Your task to perform on an android device: turn vacation reply on in the gmail app Image 0: 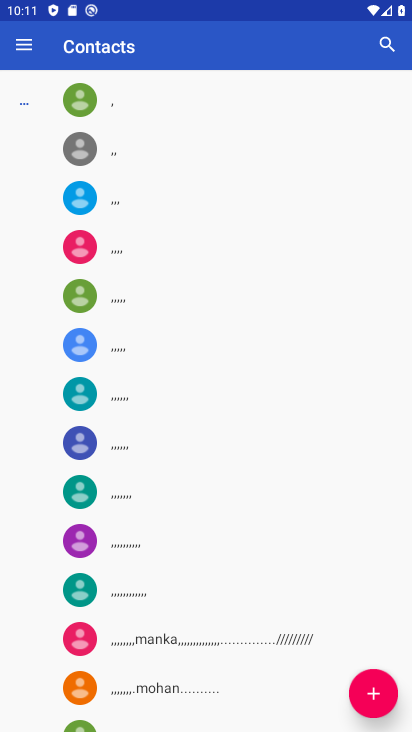
Step 0: press home button
Your task to perform on an android device: turn vacation reply on in the gmail app Image 1: 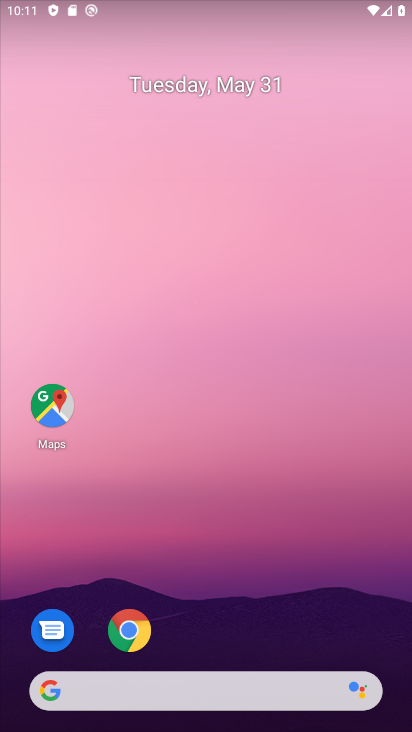
Step 1: drag from (323, 613) to (272, 137)
Your task to perform on an android device: turn vacation reply on in the gmail app Image 2: 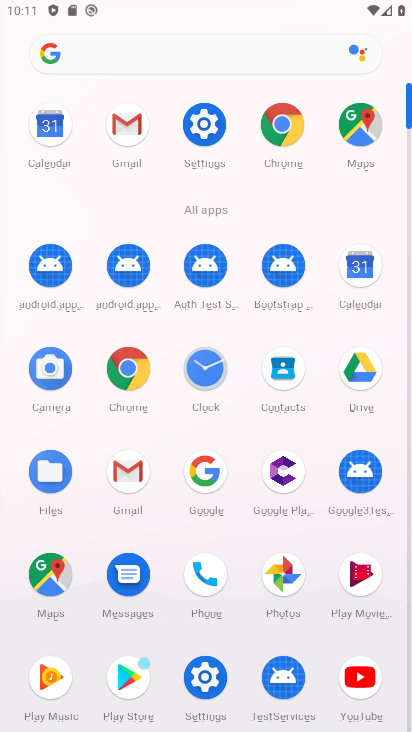
Step 2: click (133, 126)
Your task to perform on an android device: turn vacation reply on in the gmail app Image 3: 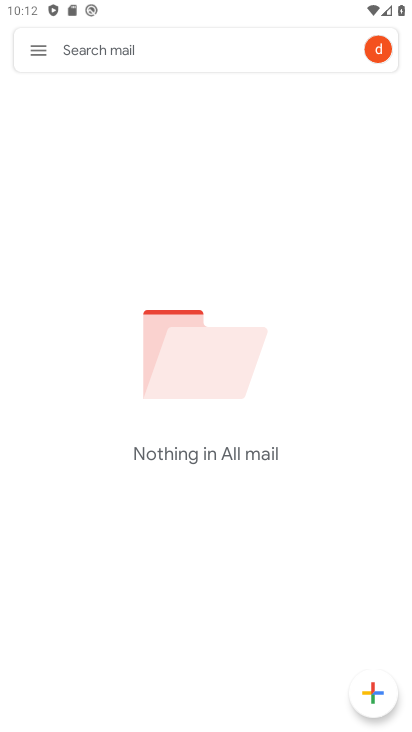
Step 3: click (45, 52)
Your task to perform on an android device: turn vacation reply on in the gmail app Image 4: 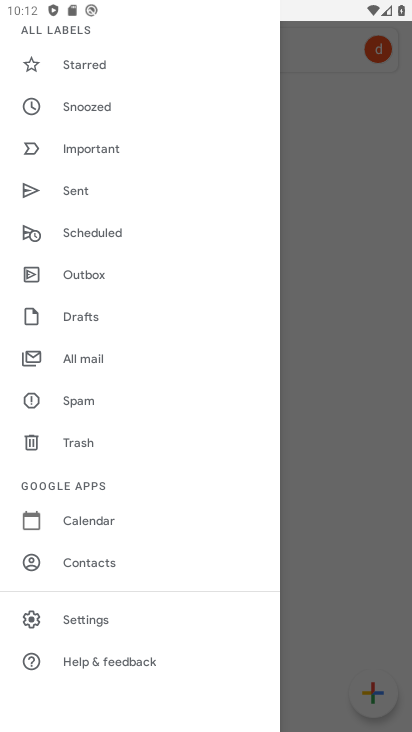
Step 4: click (94, 618)
Your task to perform on an android device: turn vacation reply on in the gmail app Image 5: 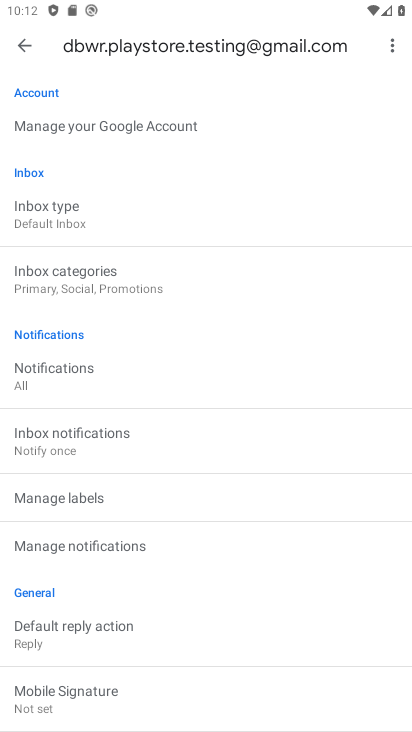
Step 5: drag from (350, 485) to (316, 0)
Your task to perform on an android device: turn vacation reply on in the gmail app Image 6: 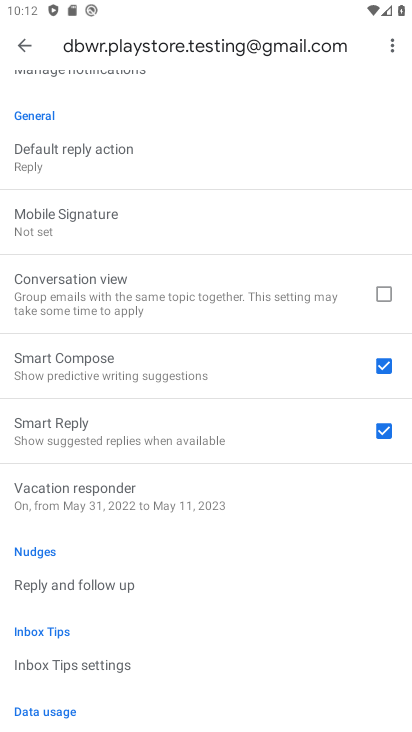
Step 6: click (175, 491)
Your task to perform on an android device: turn vacation reply on in the gmail app Image 7: 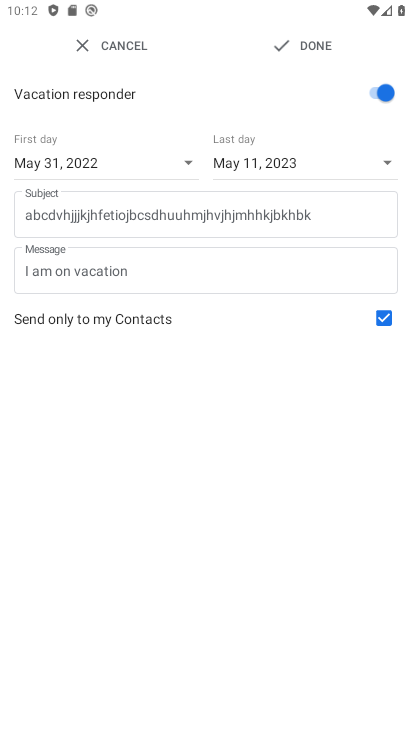
Step 7: task complete